Your task to perform on an android device: Open the web browser Image 0: 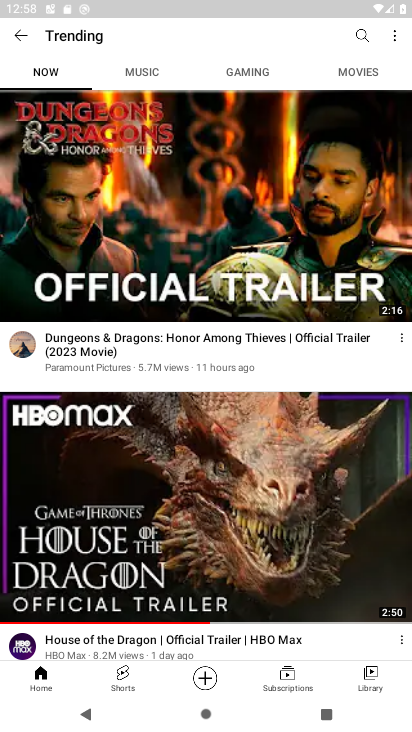
Step 0: press home button
Your task to perform on an android device: Open the web browser Image 1: 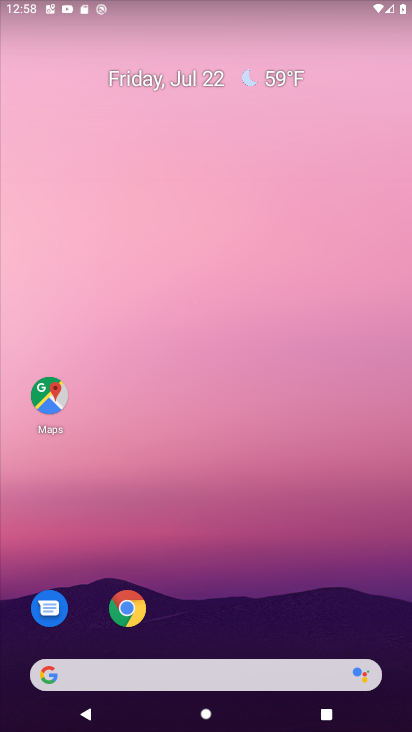
Step 1: drag from (227, 589) to (250, 93)
Your task to perform on an android device: Open the web browser Image 2: 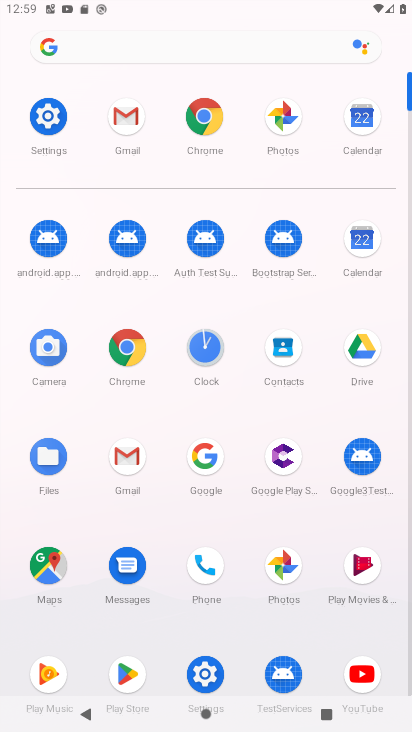
Step 2: drag from (150, 622) to (174, 357)
Your task to perform on an android device: Open the web browser Image 3: 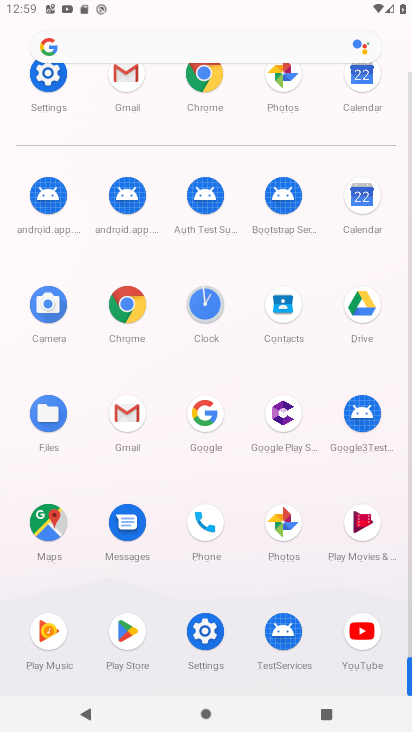
Step 3: click (120, 320)
Your task to perform on an android device: Open the web browser Image 4: 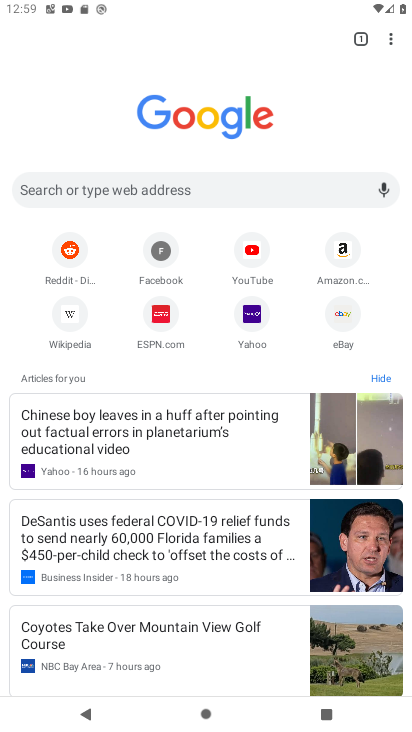
Step 4: click (393, 34)
Your task to perform on an android device: Open the web browser Image 5: 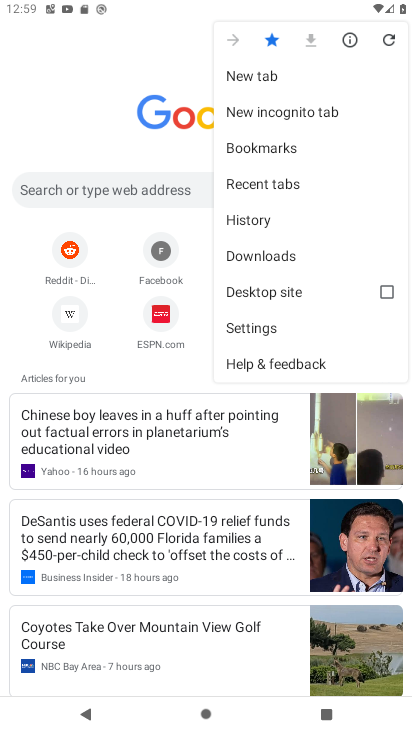
Step 5: click (90, 113)
Your task to perform on an android device: Open the web browser Image 6: 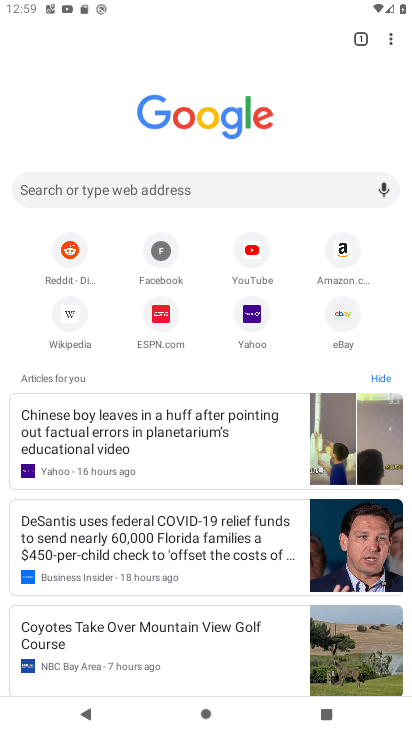
Step 6: task complete